Your task to perform on an android device: Open Google Chrome Image 0: 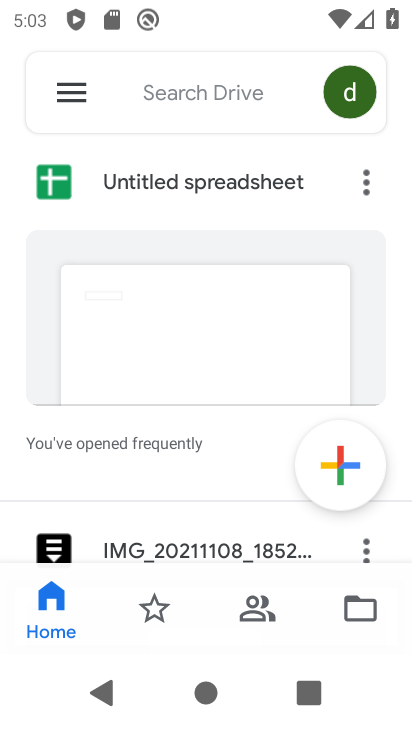
Step 0: press back button
Your task to perform on an android device: Open Google Chrome Image 1: 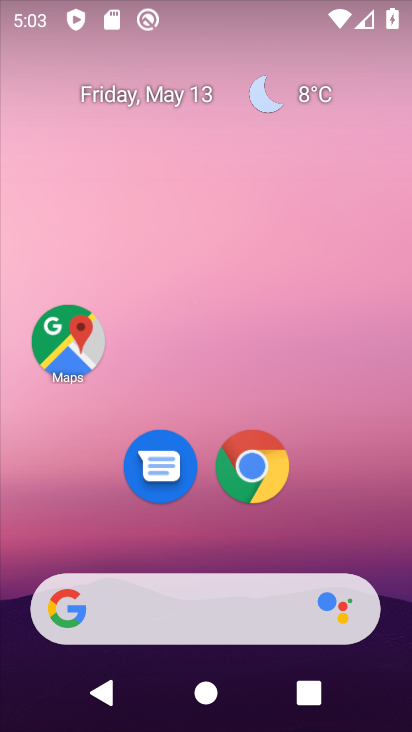
Step 1: click (117, 17)
Your task to perform on an android device: Open Google Chrome Image 2: 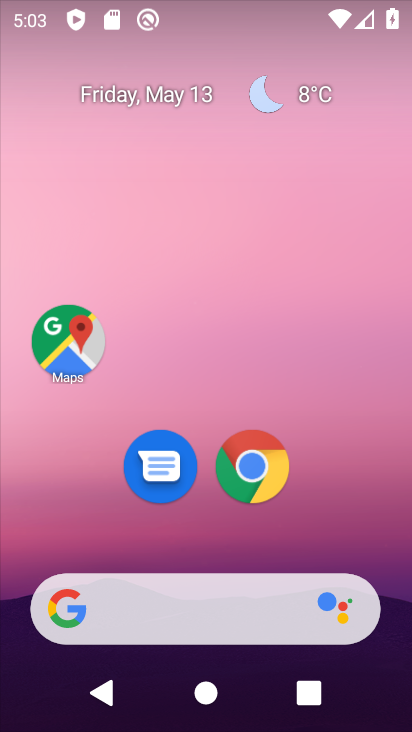
Step 2: click (69, 24)
Your task to perform on an android device: Open Google Chrome Image 3: 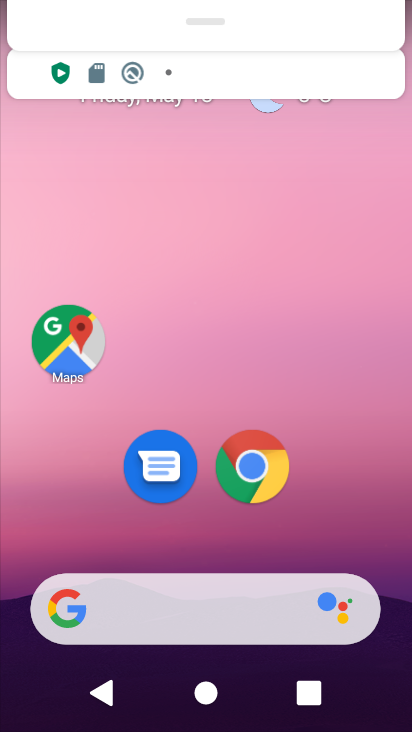
Step 3: drag from (312, 462) to (91, 129)
Your task to perform on an android device: Open Google Chrome Image 4: 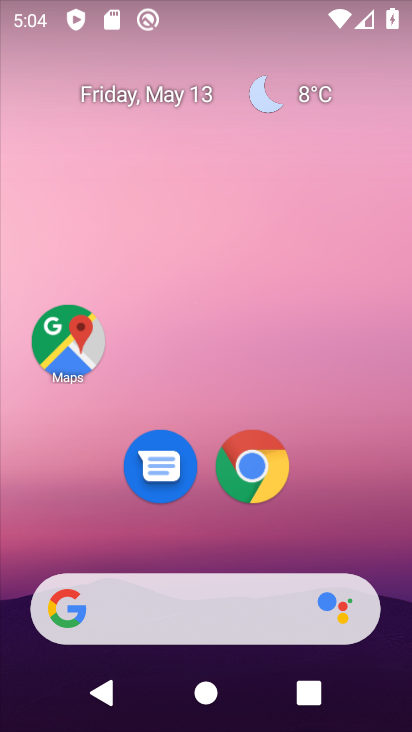
Step 4: drag from (272, 517) to (149, 318)
Your task to perform on an android device: Open Google Chrome Image 5: 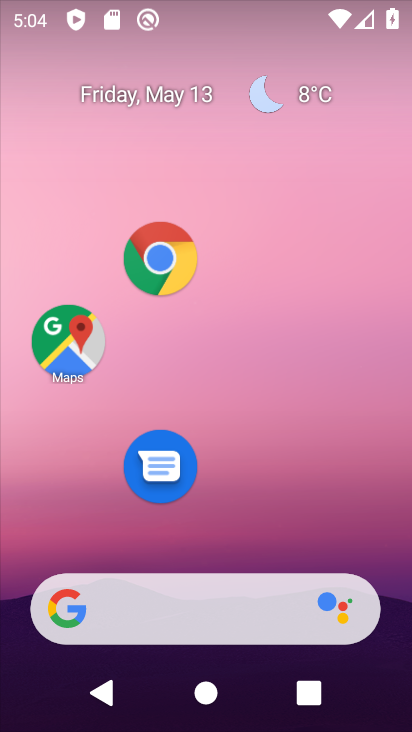
Step 5: click (257, 464)
Your task to perform on an android device: Open Google Chrome Image 6: 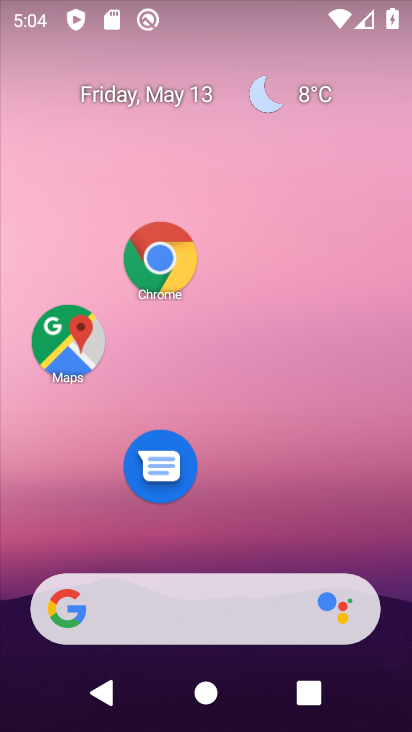
Step 6: click (139, 207)
Your task to perform on an android device: Open Google Chrome Image 7: 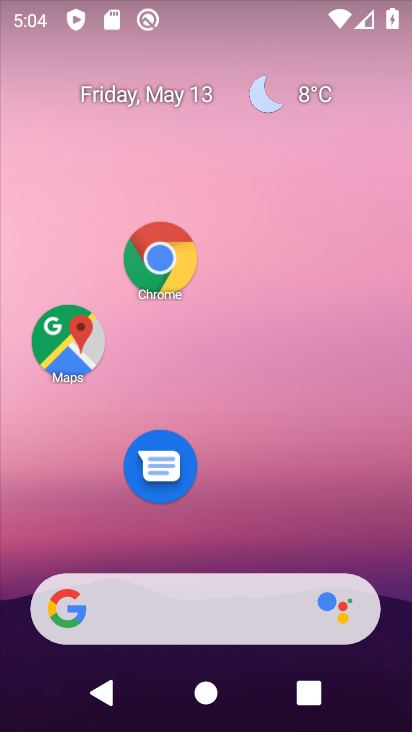
Step 7: drag from (256, 425) to (114, 124)
Your task to perform on an android device: Open Google Chrome Image 8: 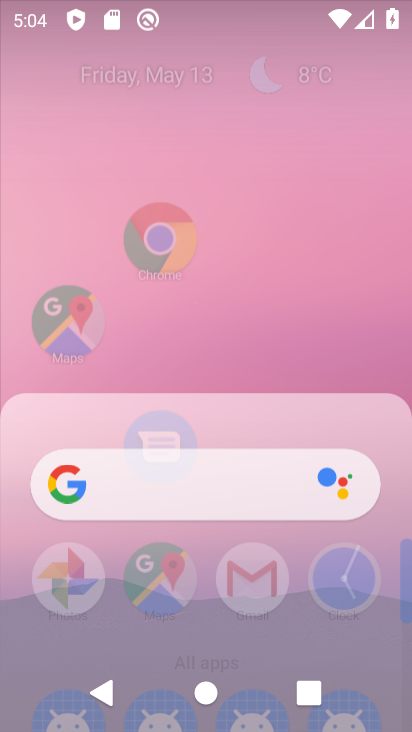
Step 8: drag from (190, 420) to (138, 311)
Your task to perform on an android device: Open Google Chrome Image 9: 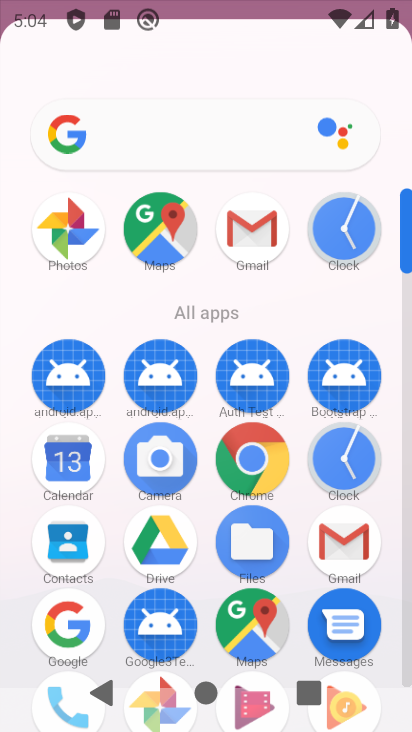
Step 9: drag from (230, 450) to (158, 87)
Your task to perform on an android device: Open Google Chrome Image 10: 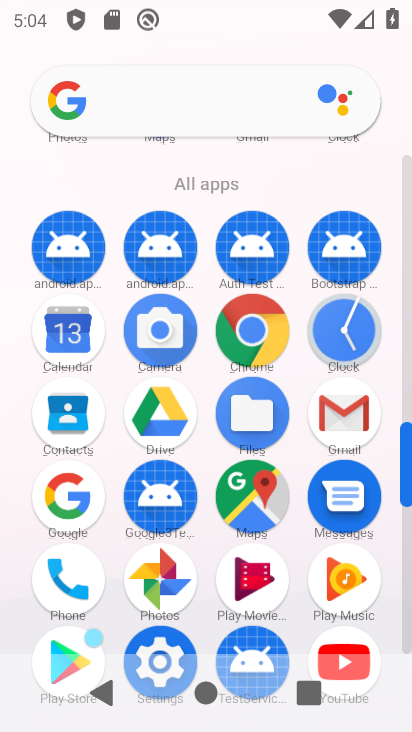
Step 10: click (67, 494)
Your task to perform on an android device: Open Google Chrome Image 11: 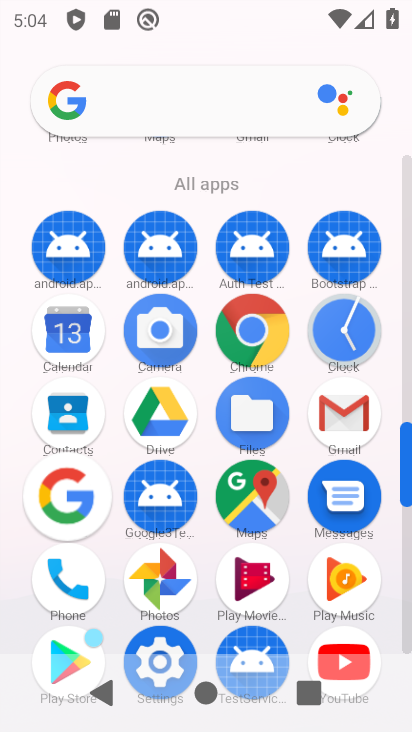
Step 11: click (72, 495)
Your task to perform on an android device: Open Google Chrome Image 12: 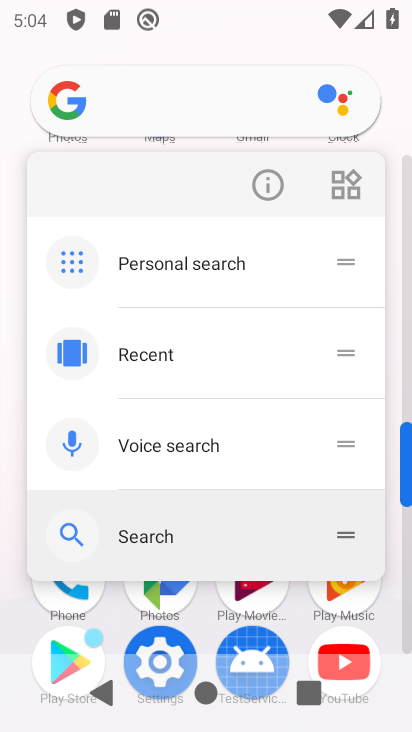
Step 12: click (259, 333)
Your task to perform on an android device: Open Google Chrome Image 13: 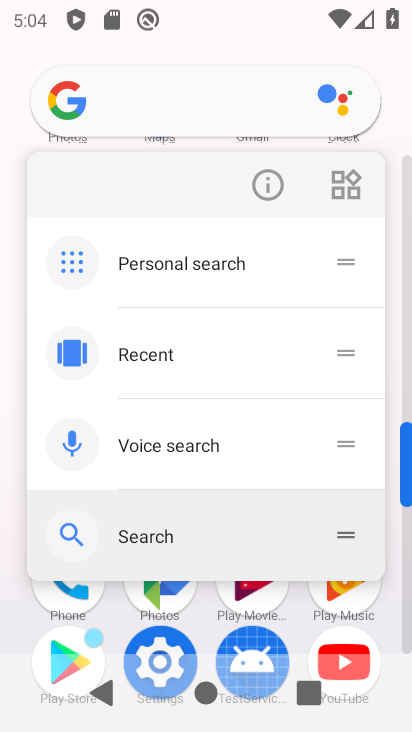
Step 13: click (256, 330)
Your task to perform on an android device: Open Google Chrome Image 14: 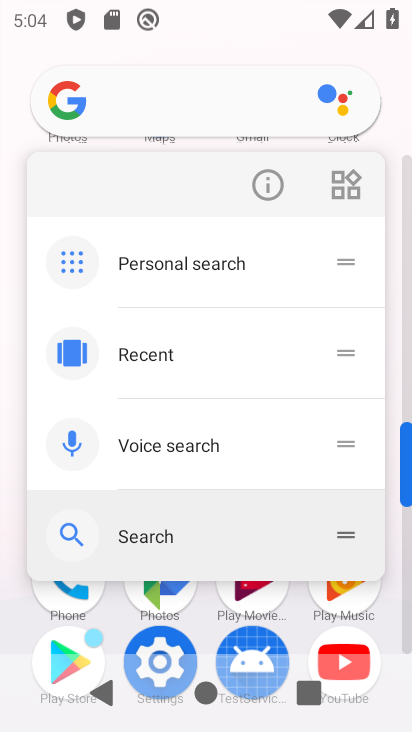
Step 14: click (256, 330)
Your task to perform on an android device: Open Google Chrome Image 15: 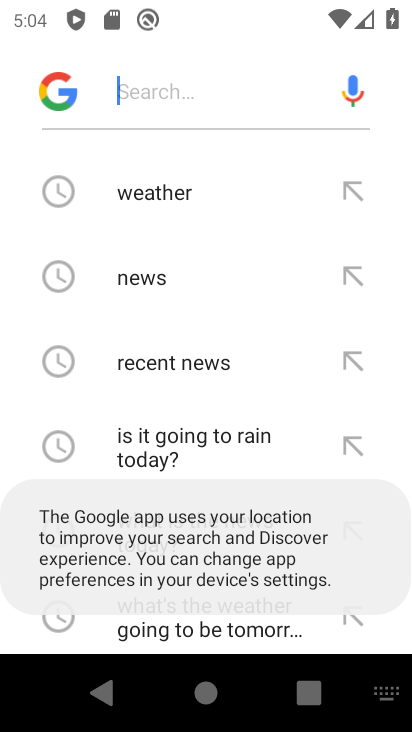
Step 15: press back button
Your task to perform on an android device: Open Google Chrome Image 16: 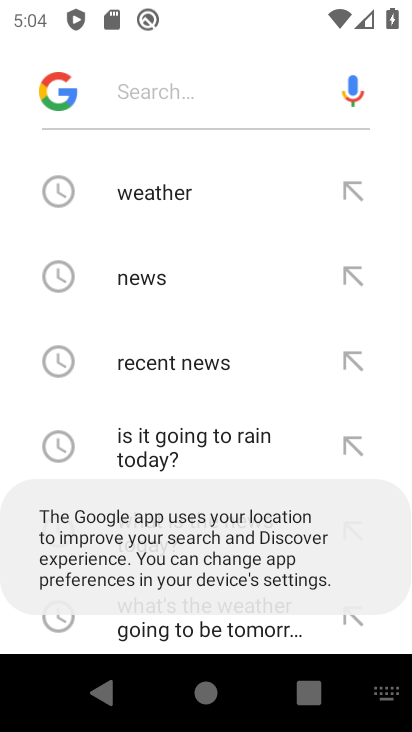
Step 16: press back button
Your task to perform on an android device: Open Google Chrome Image 17: 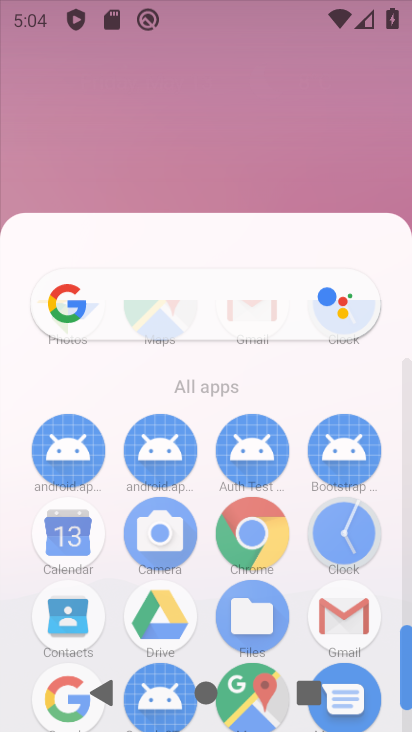
Step 17: press back button
Your task to perform on an android device: Open Google Chrome Image 18: 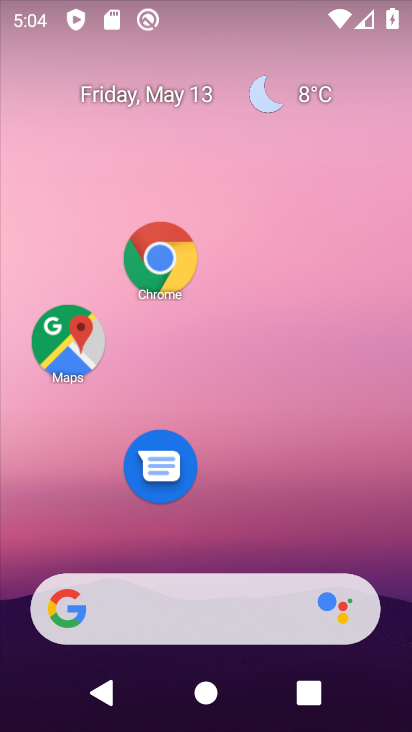
Step 18: press back button
Your task to perform on an android device: Open Google Chrome Image 19: 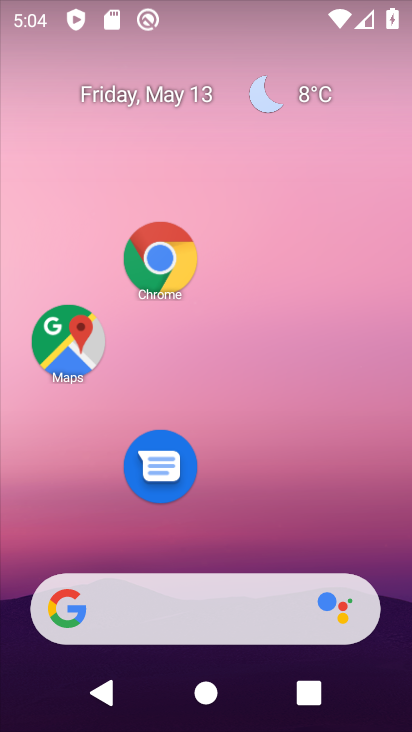
Step 19: press home button
Your task to perform on an android device: Open Google Chrome Image 20: 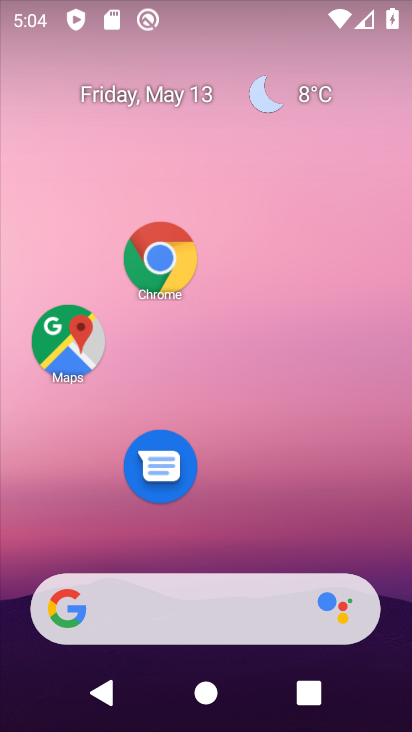
Step 20: press home button
Your task to perform on an android device: Open Google Chrome Image 21: 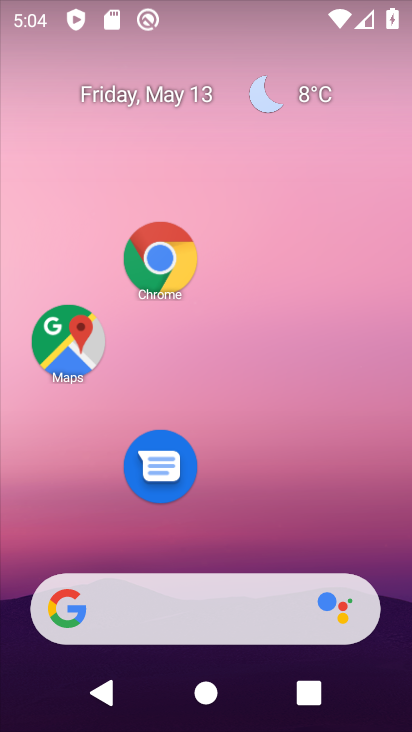
Step 21: press back button
Your task to perform on an android device: Open Google Chrome Image 22: 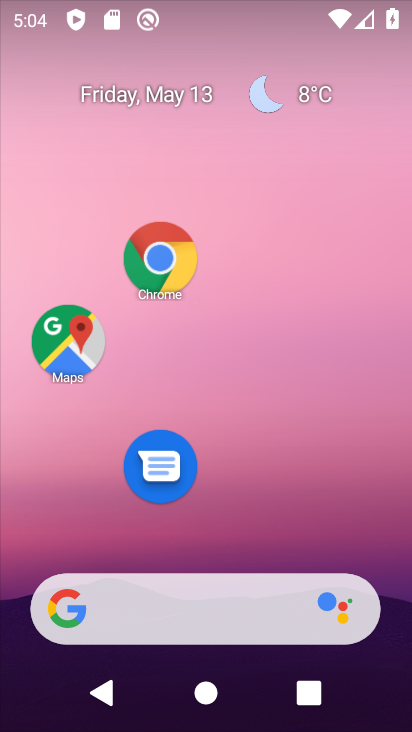
Step 22: click (76, 19)
Your task to perform on an android device: Open Google Chrome Image 23: 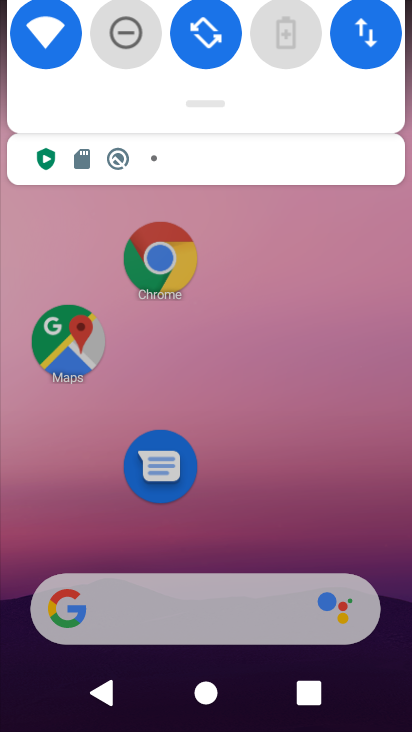
Step 23: click (173, 40)
Your task to perform on an android device: Open Google Chrome Image 24: 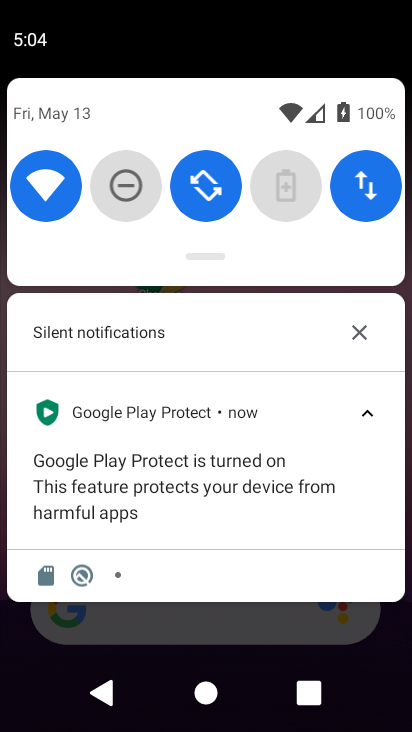
Step 24: drag from (158, 92) to (140, 21)
Your task to perform on an android device: Open Google Chrome Image 25: 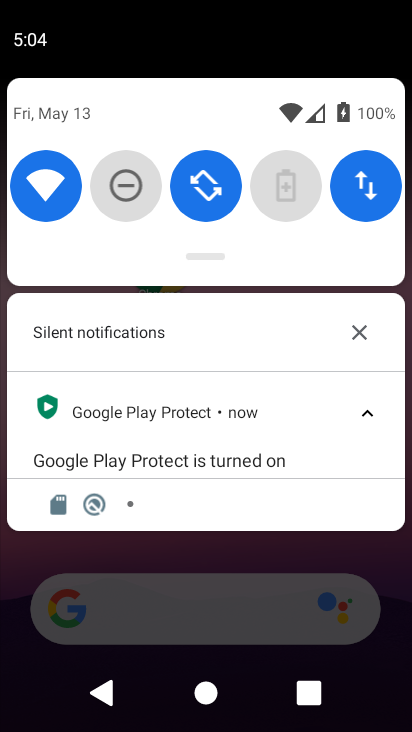
Step 25: drag from (272, 402) to (125, 26)
Your task to perform on an android device: Open Google Chrome Image 26: 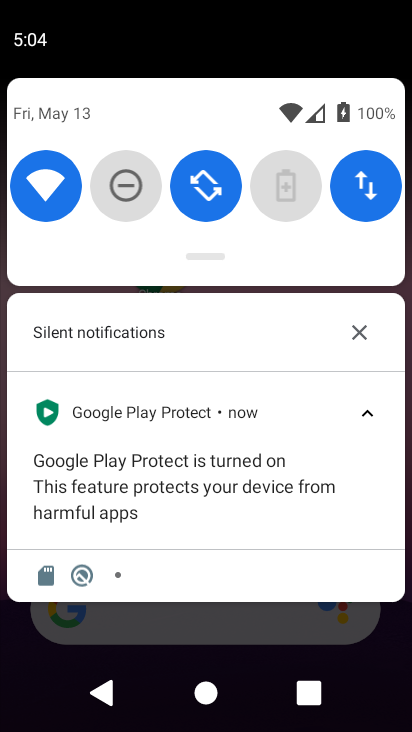
Step 26: click (364, 334)
Your task to perform on an android device: Open Google Chrome Image 27: 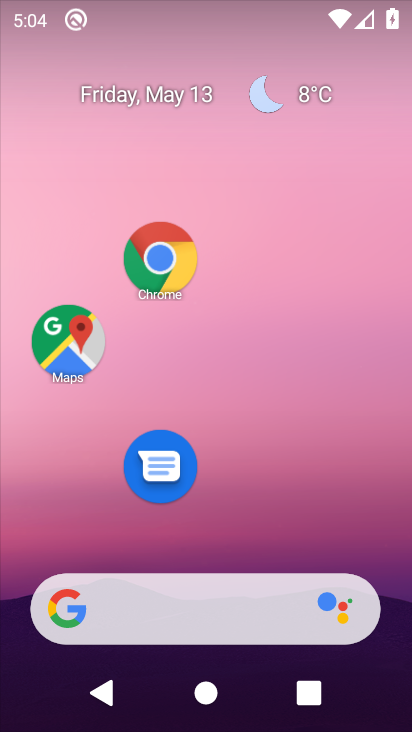
Step 27: drag from (252, 453) to (111, 90)
Your task to perform on an android device: Open Google Chrome Image 28: 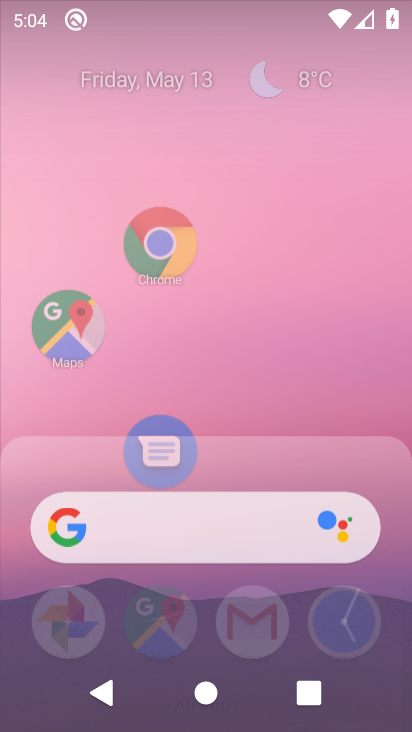
Step 28: drag from (230, 395) to (105, 9)
Your task to perform on an android device: Open Google Chrome Image 29: 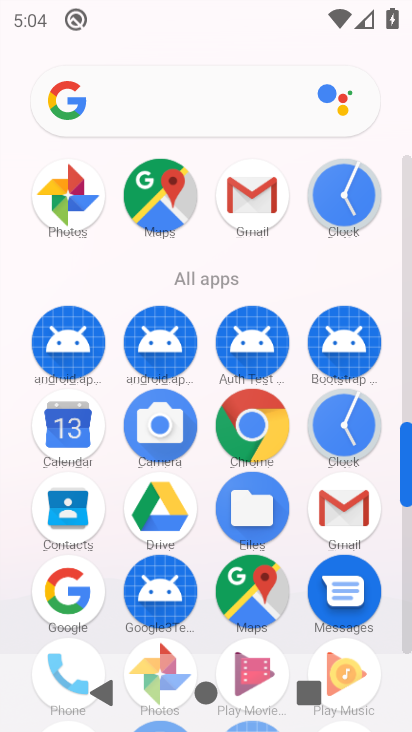
Step 29: drag from (209, 341) to (98, 8)
Your task to perform on an android device: Open Google Chrome Image 30: 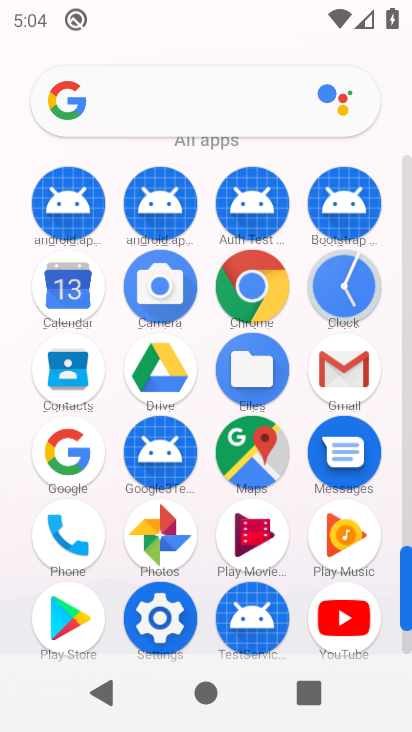
Step 30: click (264, 294)
Your task to perform on an android device: Open Google Chrome Image 31: 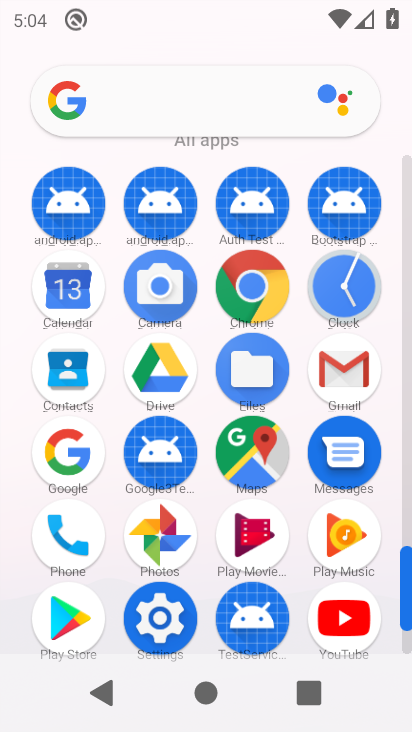
Step 31: click (265, 293)
Your task to perform on an android device: Open Google Chrome Image 32: 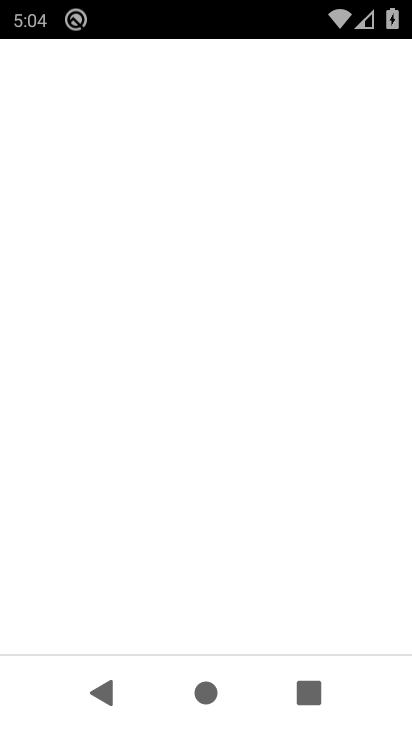
Step 32: click (265, 293)
Your task to perform on an android device: Open Google Chrome Image 33: 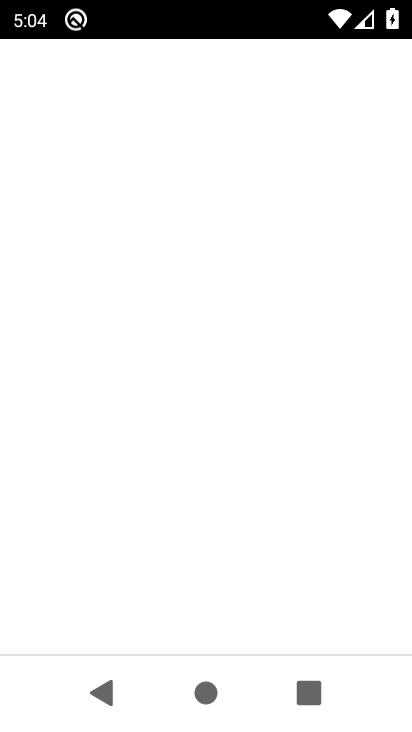
Step 33: click (267, 293)
Your task to perform on an android device: Open Google Chrome Image 34: 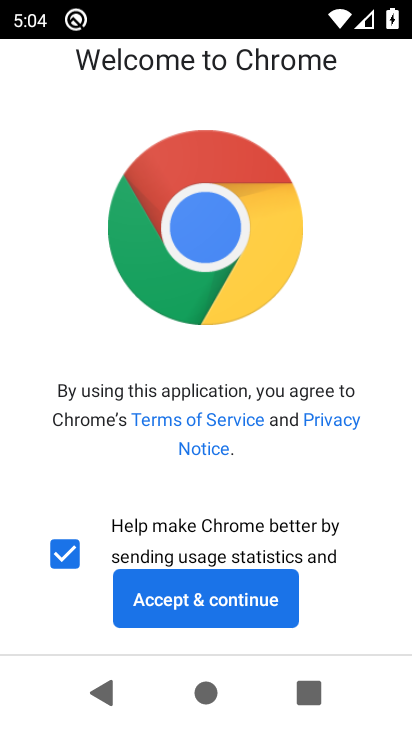
Step 34: click (193, 587)
Your task to perform on an android device: Open Google Chrome Image 35: 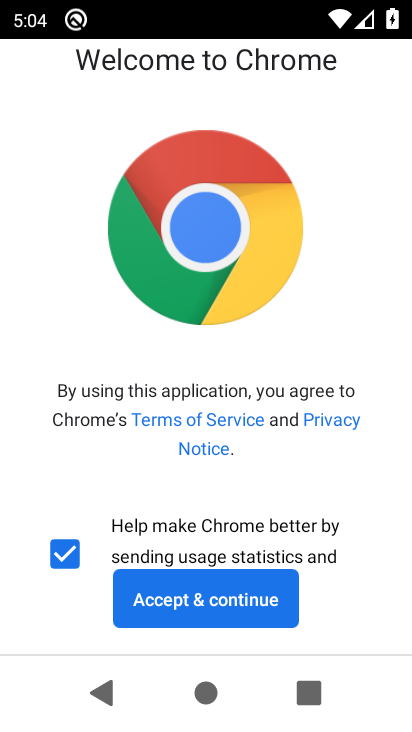
Step 35: click (192, 587)
Your task to perform on an android device: Open Google Chrome Image 36: 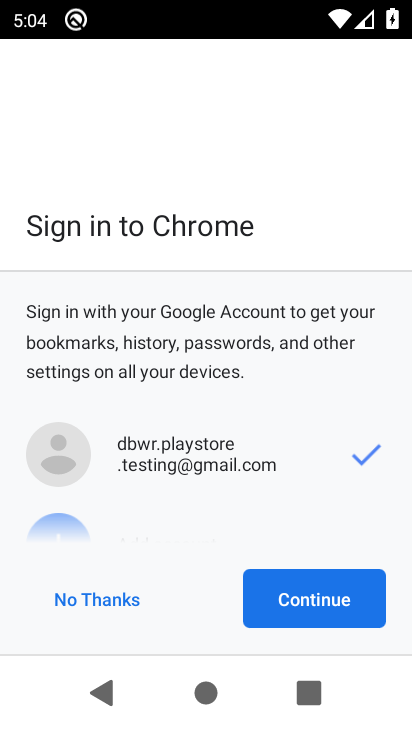
Step 36: click (212, 577)
Your task to perform on an android device: Open Google Chrome Image 37: 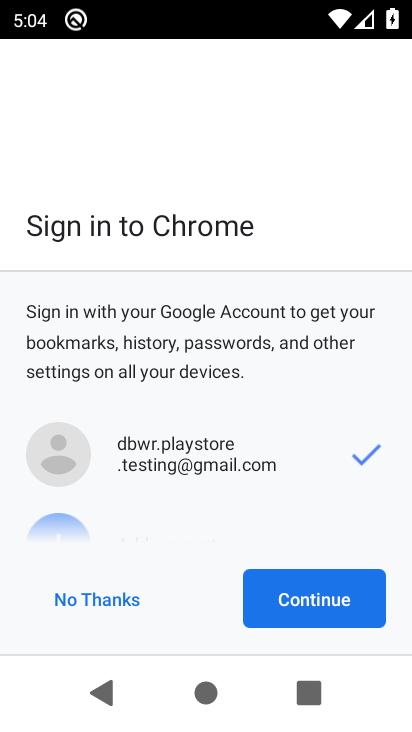
Step 37: click (312, 594)
Your task to perform on an android device: Open Google Chrome Image 38: 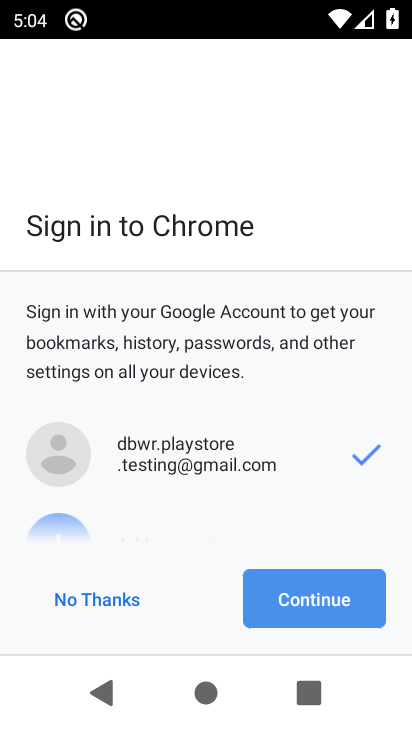
Step 38: click (320, 582)
Your task to perform on an android device: Open Google Chrome Image 39: 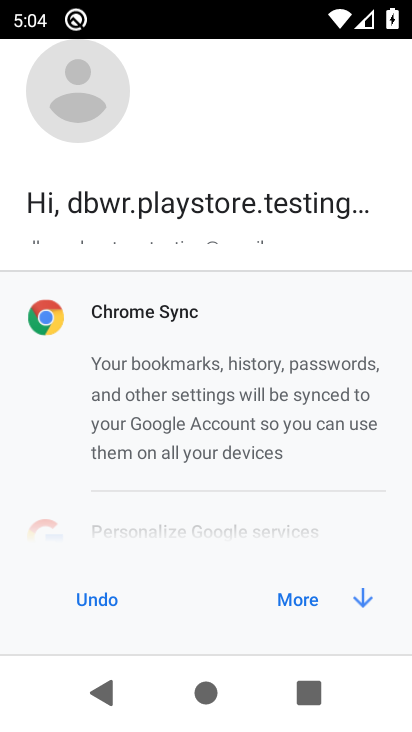
Step 39: click (312, 583)
Your task to perform on an android device: Open Google Chrome Image 40: 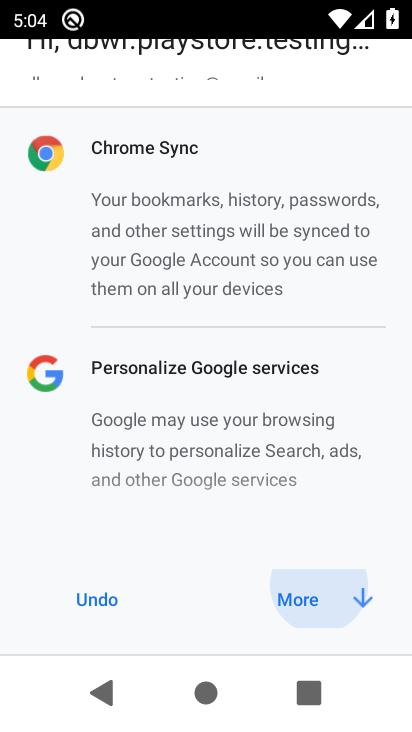
Step 40: click (316, 585)
Your task to perform on an android device: Open Google Chrome Image 41: 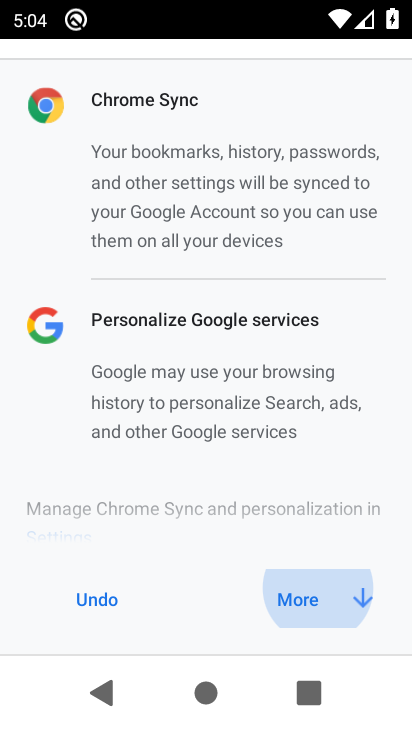
Step 41: click (319, 583)
Your task to perform on an android device: Open Google Chrome Image 42: 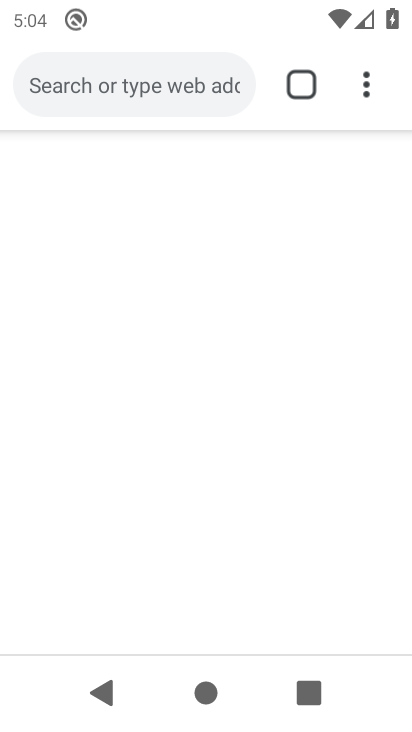
Step 42: click (325, 588)
Your task to perform on an android device: Open Google Chrome Image 43: 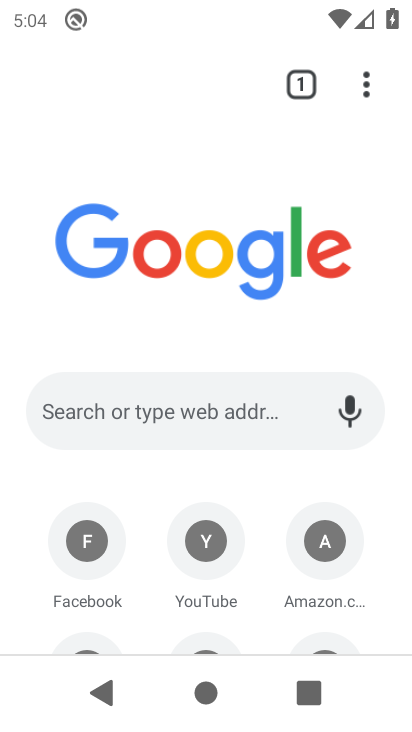
Step 43: click (325, 574)
Your task to perform on an android device: Open Google Chrome Image 44: 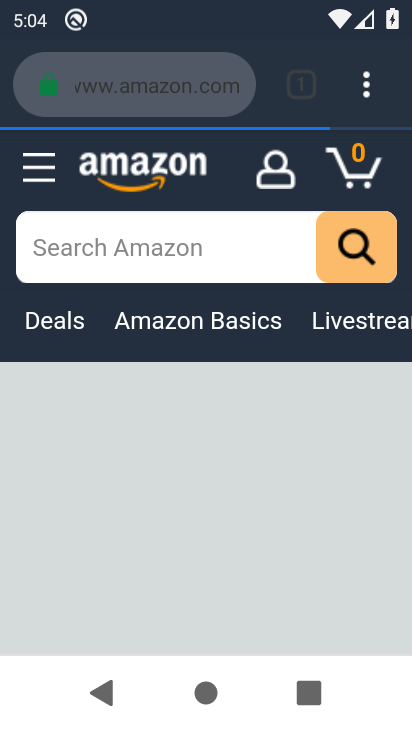
Step 44: task complete